Your task to perform on an android device: Open settings Image 0: 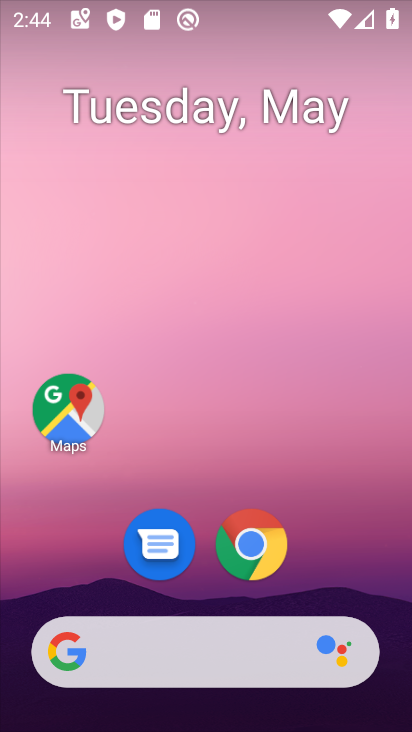
Step 0: drag from (316, 548) to (231, 112)
Your task to perform on an android device: Open settings Image 1: 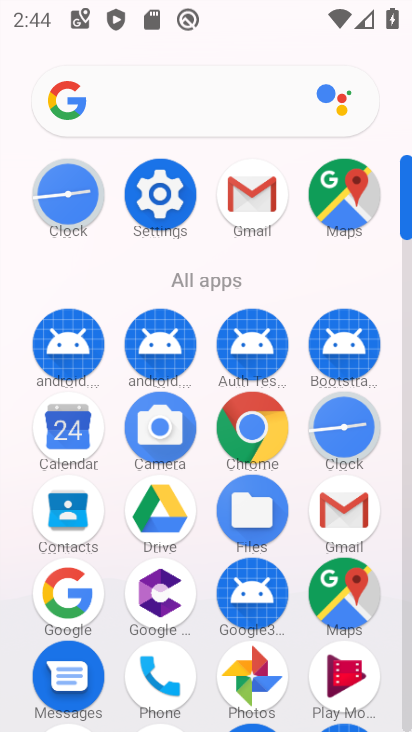
Step 1: click (161, 193)
Your task to perform on an android device: Open settings Image 2: 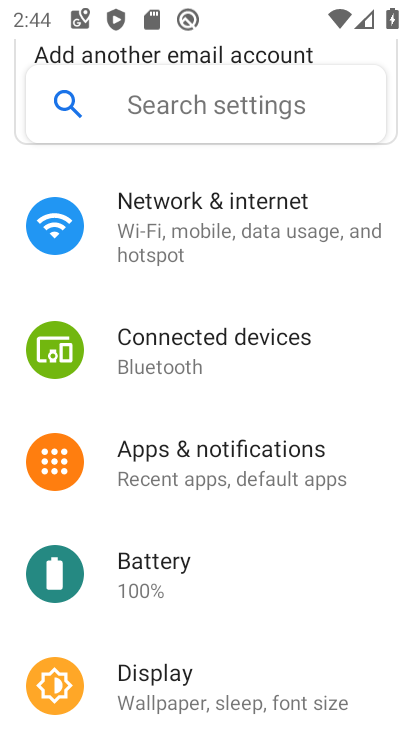
Step 2: task complete